Your task to perform on an android device: Show me recent news Image 0: 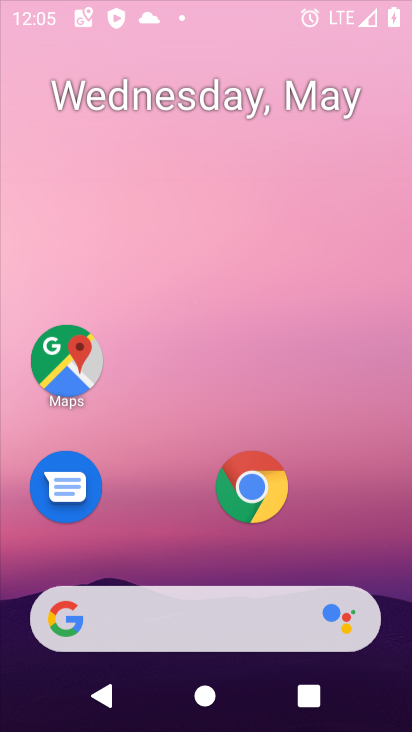
Step 0: click (344, 129)
Your task to perform on an android device: Show me recent news Image 1: 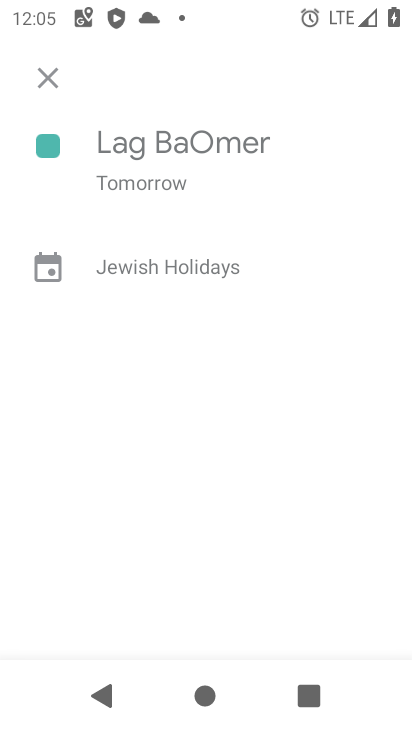
Step 1: drag from (231, 560) to (295, 216)
Your task to perform on an android device: Show me recent news Image 2: 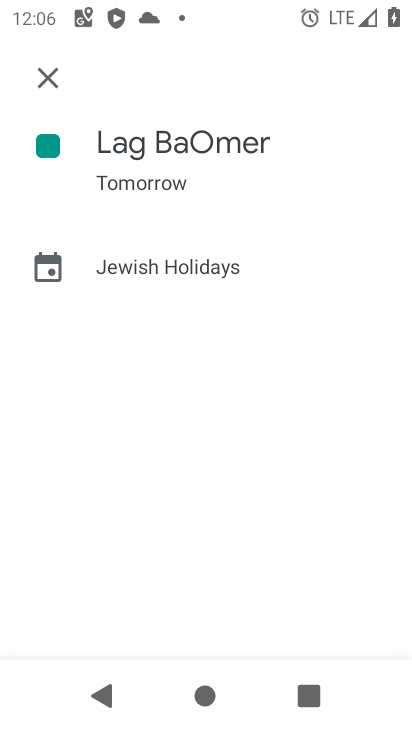
Step 2: press home button
Your task to perform on an android device: Show me recent news Image 3: 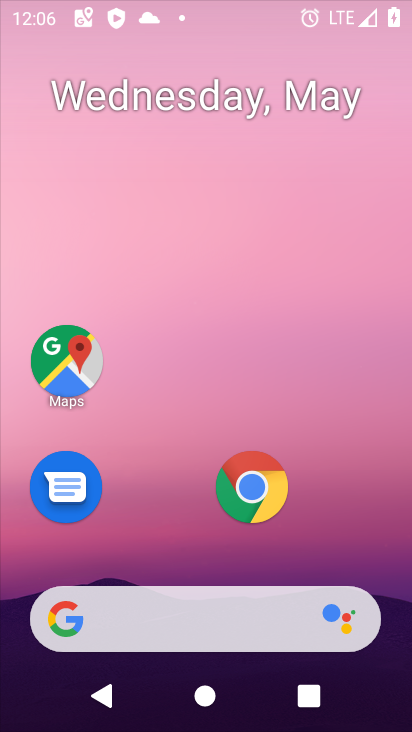
Step 3: drag from (130, 577) to (268, 3)
Your task to perform on an android device: Show me recent news Image 4: 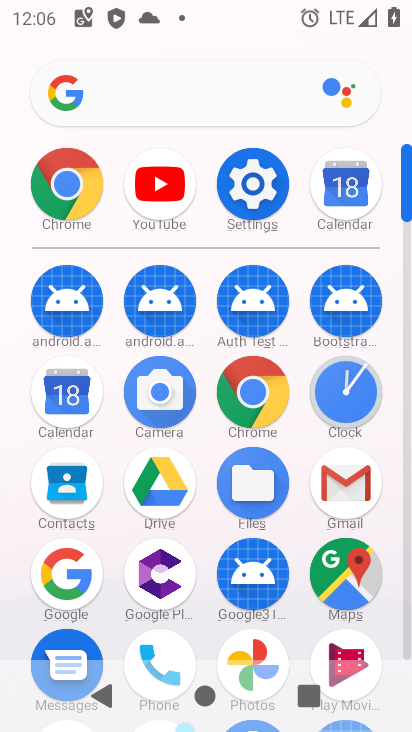
Step 4: click (187, 100)
Your task to perform on an android device: Show me recent news Image 5: 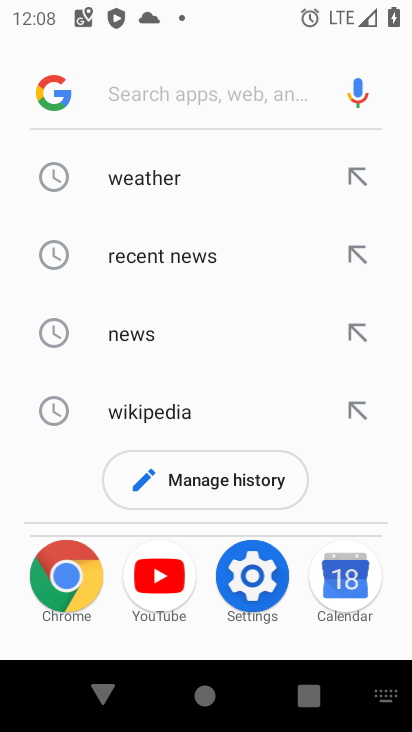
Step 5: click (148, 257)
Your task to perform on an android device: Show me recent news Image 6: 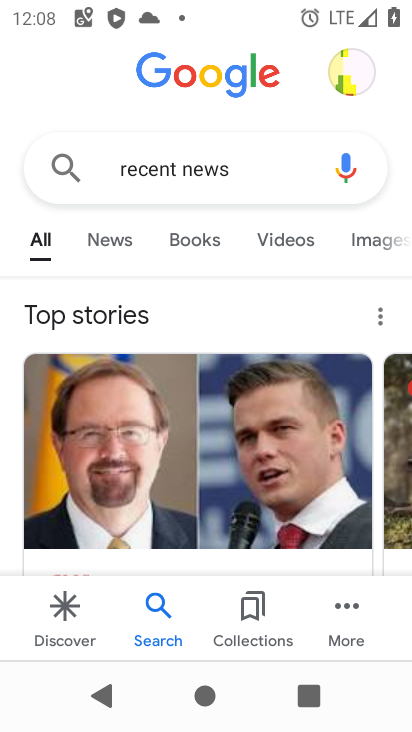
Step 6: task complete